Your task to perform on an android device: Do I have any events tomorrow? Image 0: 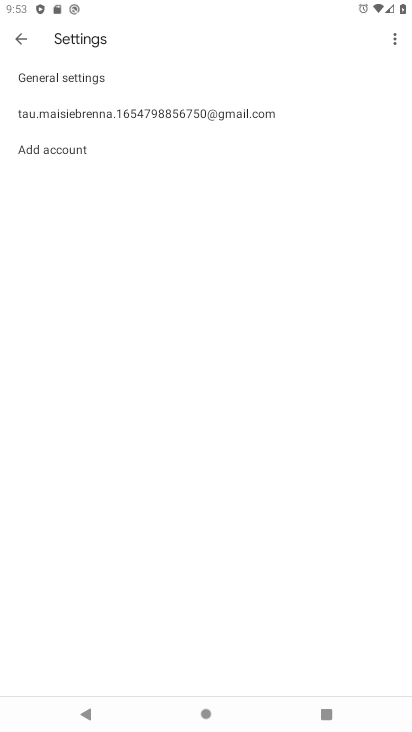
Step 0: press home button
Your task to perform on an android device: Do I have any events tomorrow? Image 1: 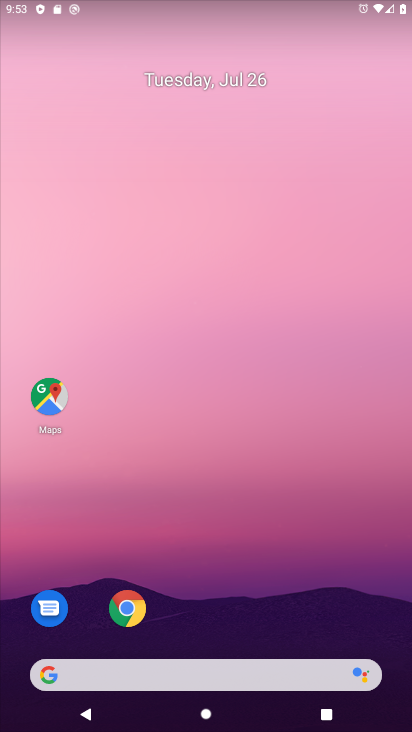
Step 1: drag from (233, 723) to (234, 275)
Your task to perform on an android device: Do I have any events tomorrow? Image 2: 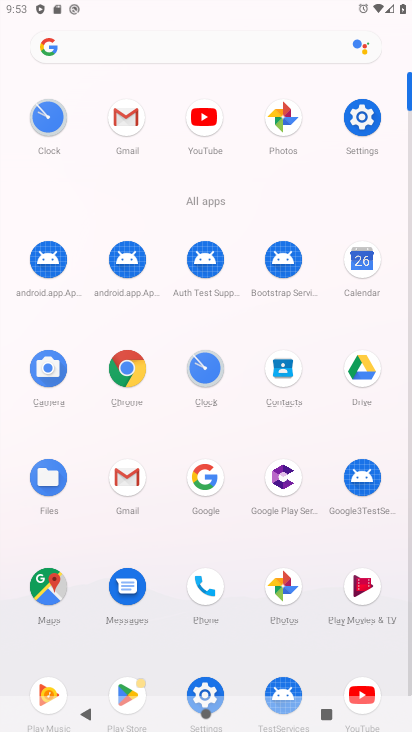
Step 2: click (364, 255)
Your task to perform on an android device: Do I have any events tomorrow? Image 3: 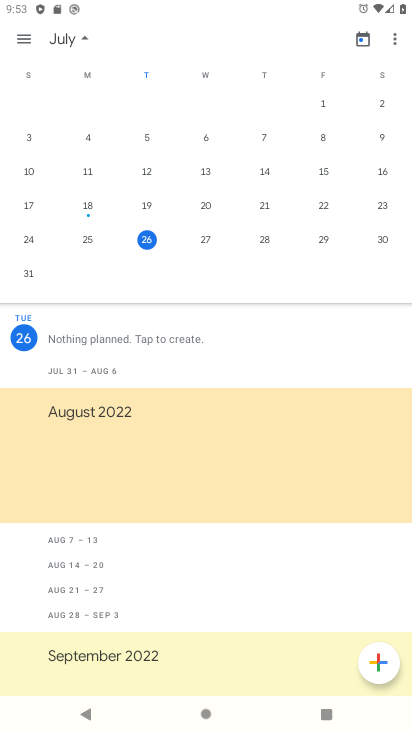
Step 3: click (207, 236)
Your task to perform on an android device: Do I have any events tomorrow? Image 4: 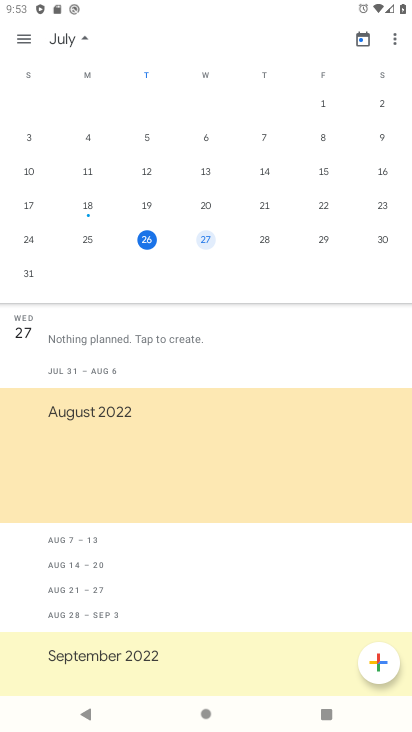
Step 4: click (207, 237)
Your task to perform on an android device: Do I have any events tomorrow? Image 5: 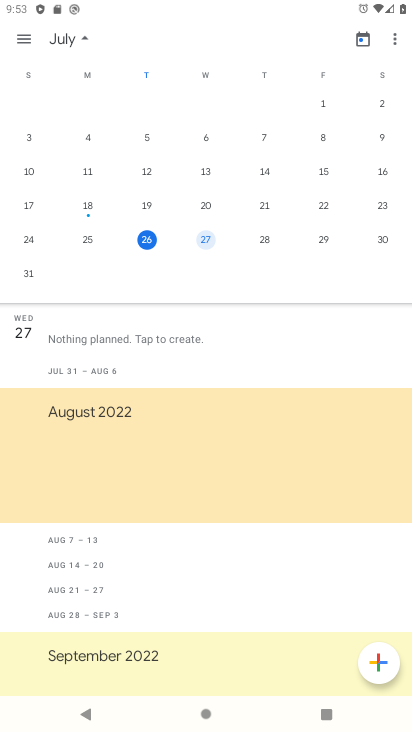
Step 5: click (208, 235)
Your task to perform on an android device: Do I have any events tomorrow? Image 6: 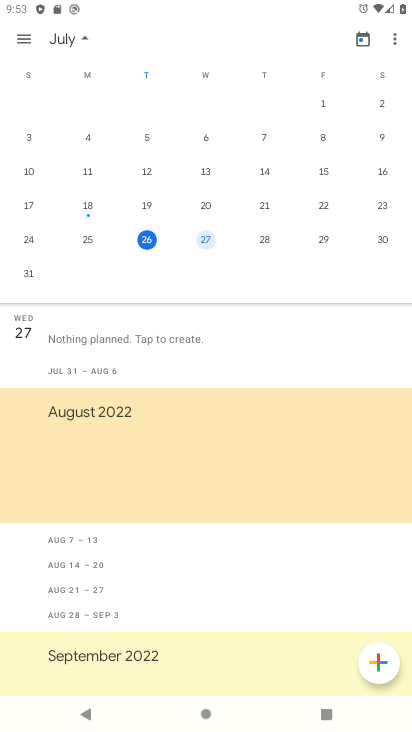
Step 6: click (22, 326)
Your task to perform on an android device: Do I have any events tomorrow? Image 7: 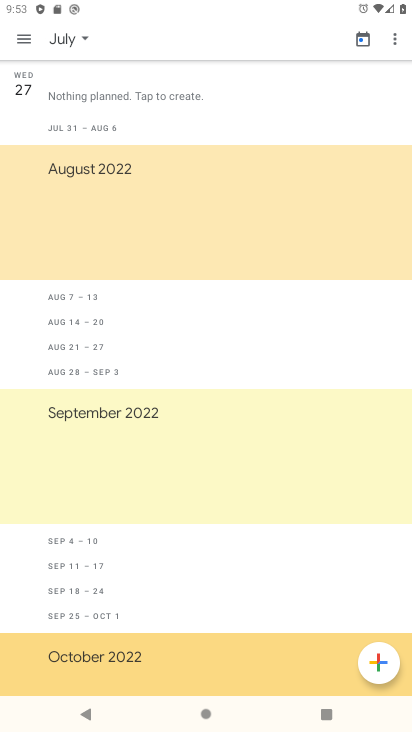
Step 7: task complete